Your task to perform on an android device: change the clock display to show seconds Image 0: 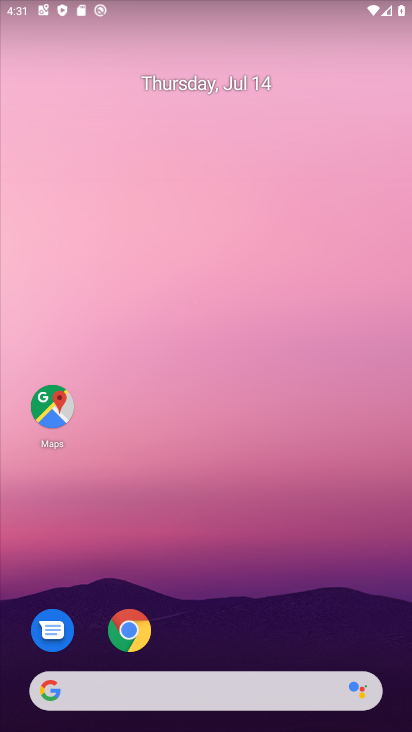
Step 0: drag from (233, 644) to (308, 31)
Your task to perform on an android device: change the clock display to show seconds Image 1: 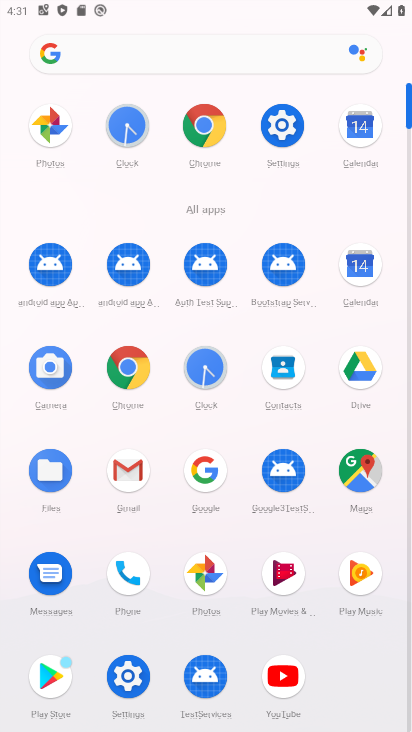
Step 1: click (205, 369)
Your task to perform on an android device: change the clock display to show seconds Image 2: 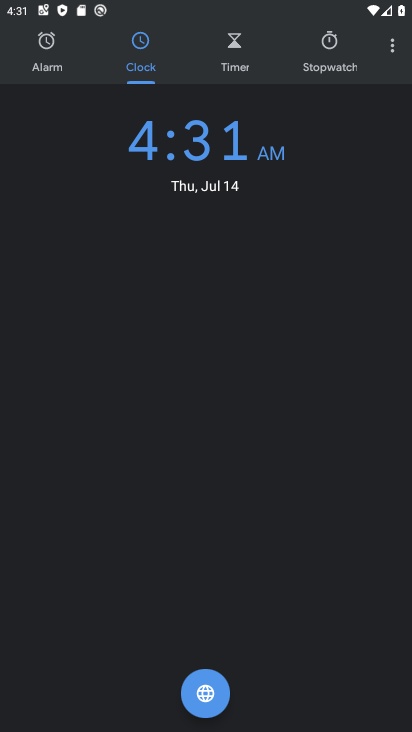
Step 2: click (390, 36)
Your task to perform on an android device: change the clock display to show seconds Image 3: 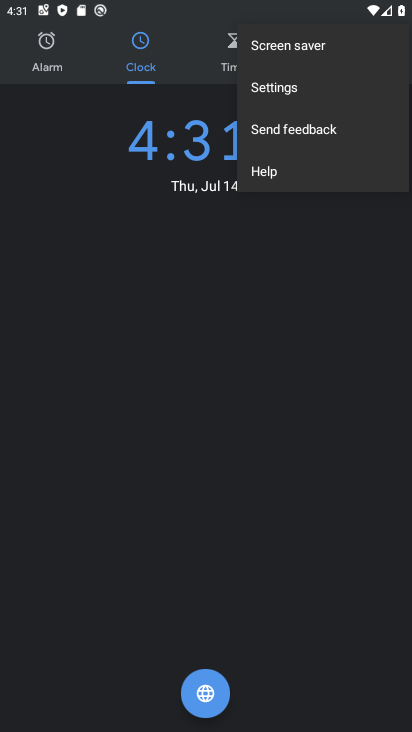
Step 3: click (286, 85)
Your task to perform on an android device: change the clock display to show seconds Image 4: 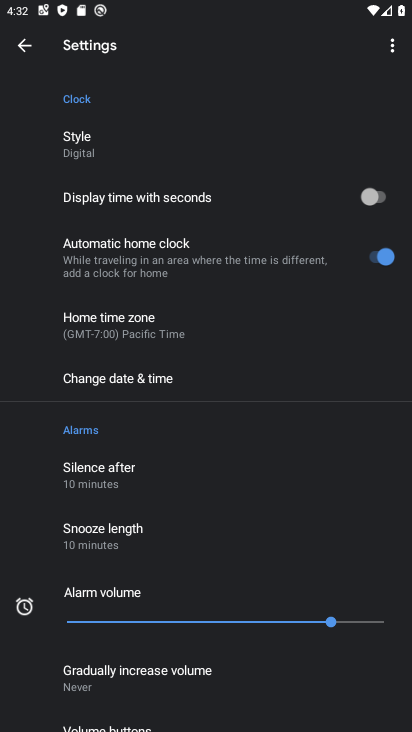
Step 4: click (370, 192)
Your task to perform on an android device: change the clock display to show seconds Image 5: 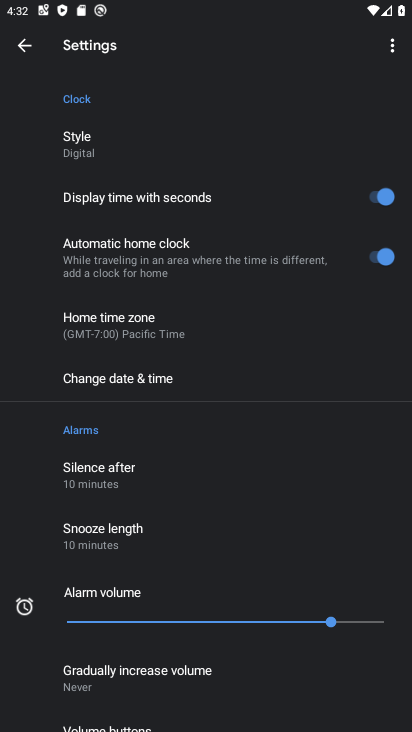
Step 5: task complete